Your task to perform on an android device: Go to network settings Image 0: 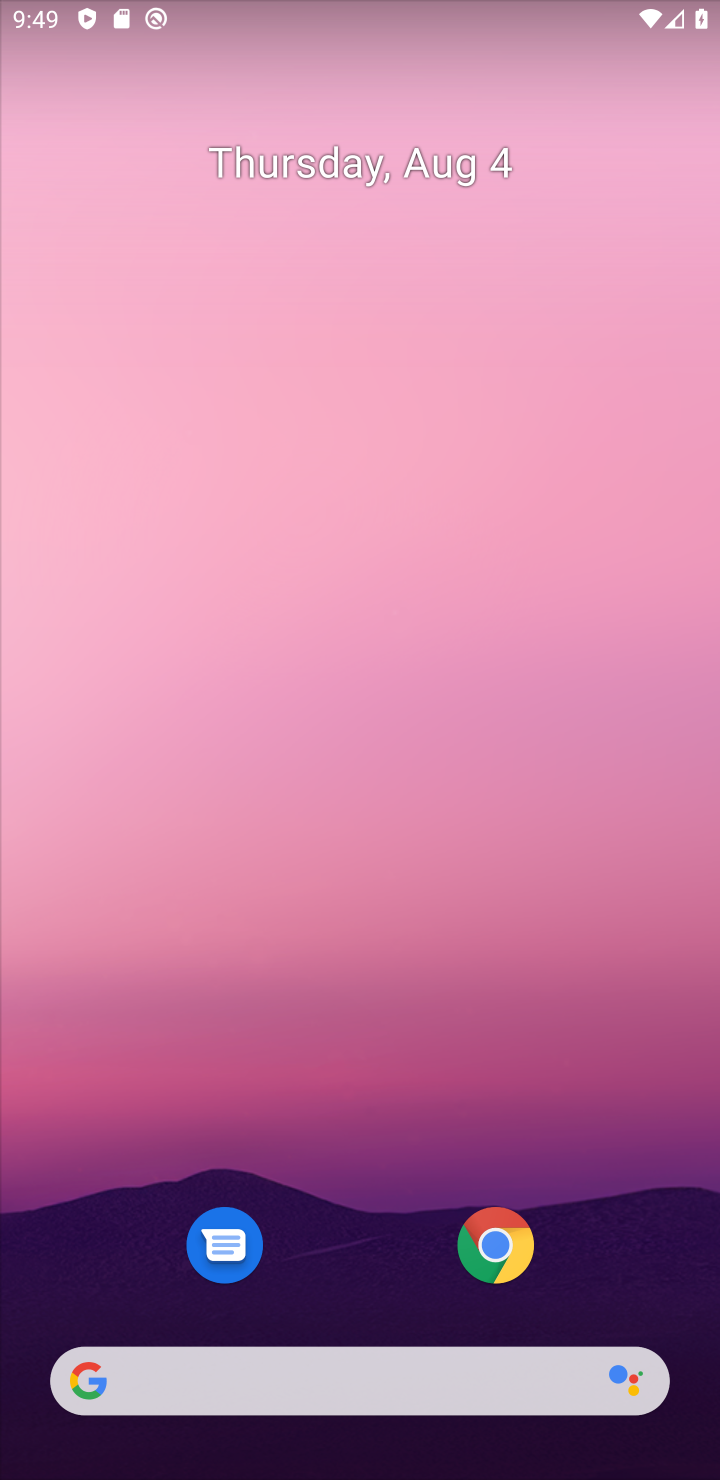
Step 0: drag from (553, 1060) to (331, 259)
Your task to perform on an android device: Go to network settings Image 1: 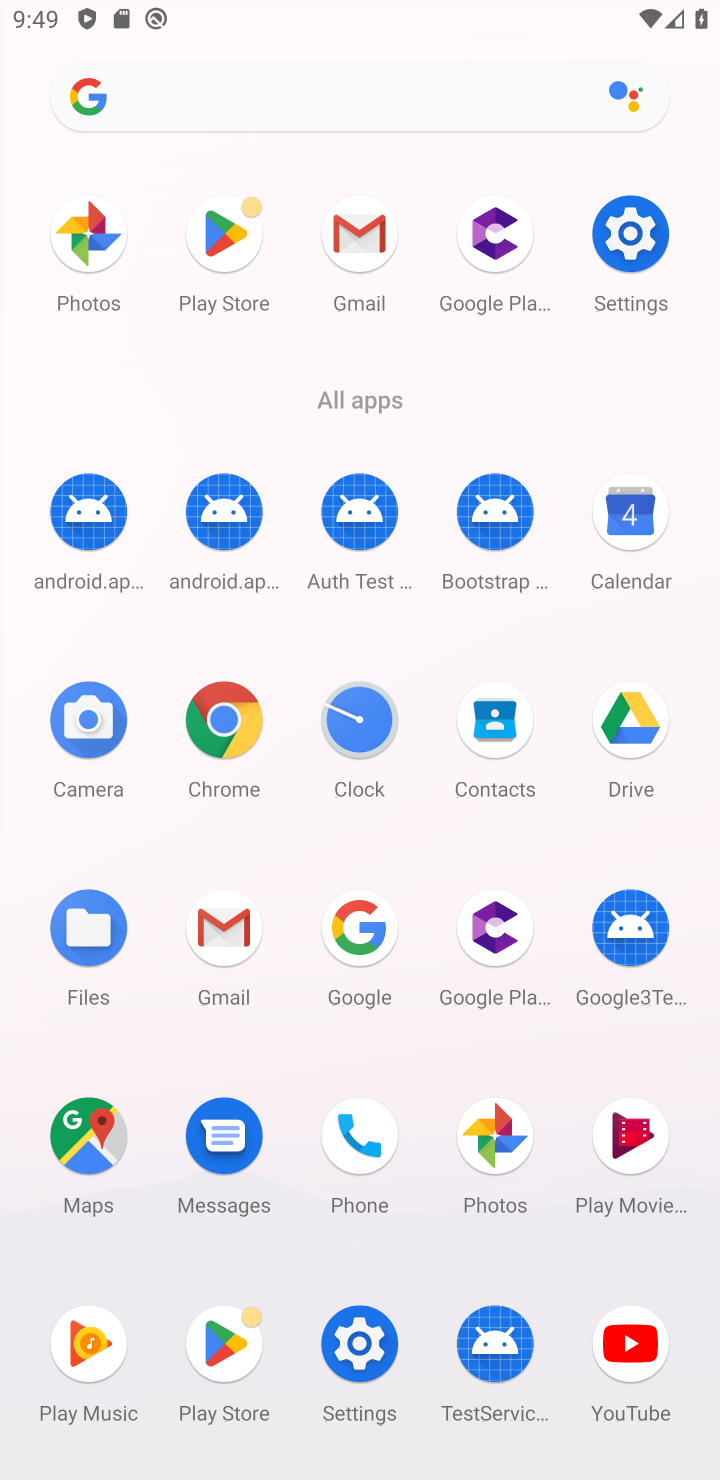
Step 1: click (363, 1329)
Your task to perform on an android device: Go to network settings Image 2: 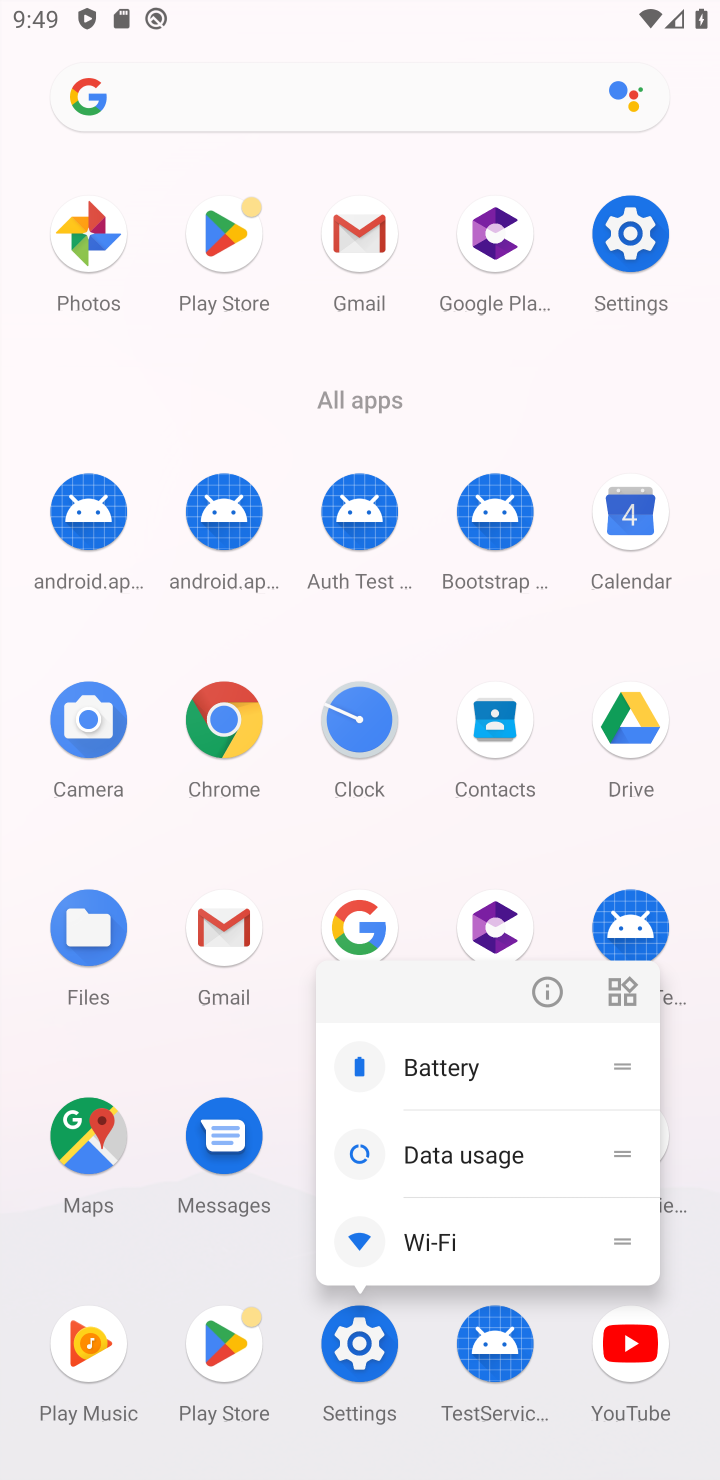
Step 2: click (363, 1329)
Your task to perform on an android device: Go to network settings Image 3: 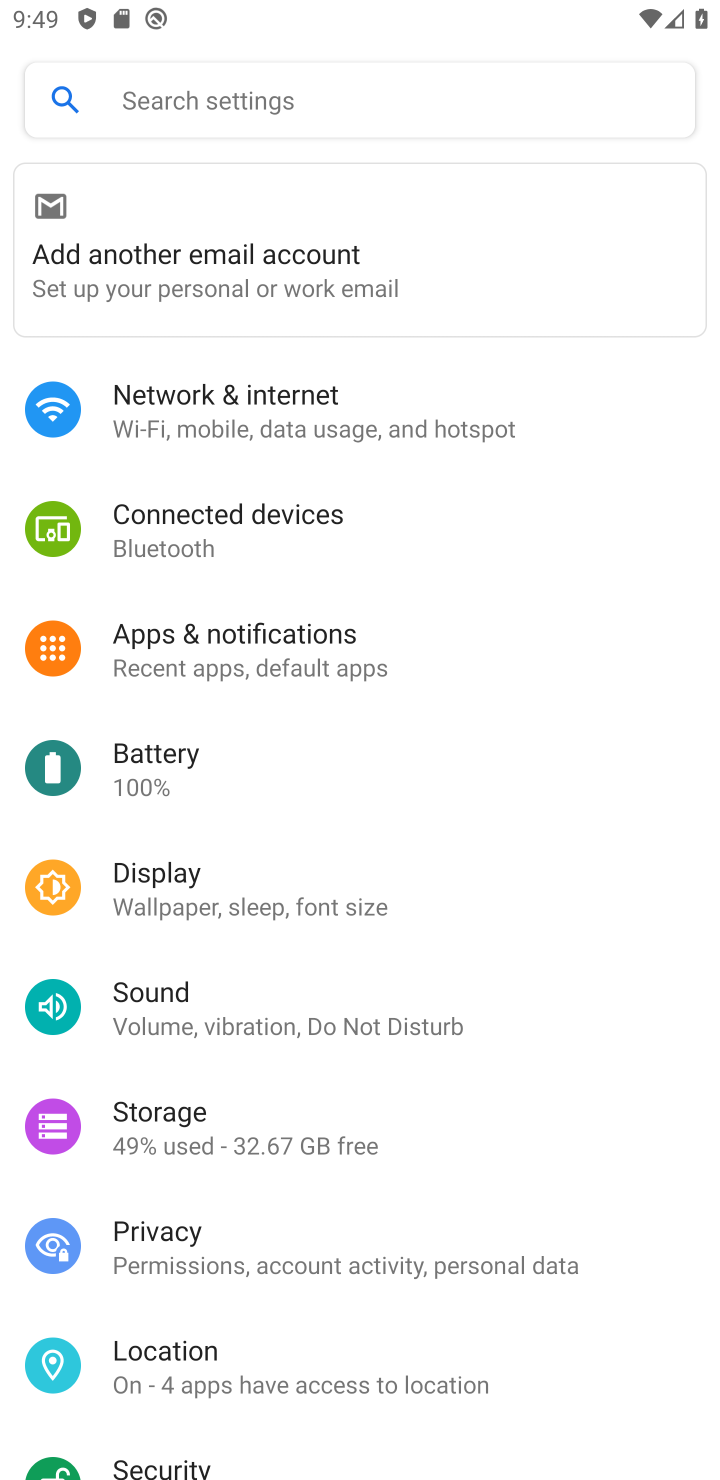
Step 3: click (351, 415)
Your task to perform on an android device: Go to network settings Image 4: 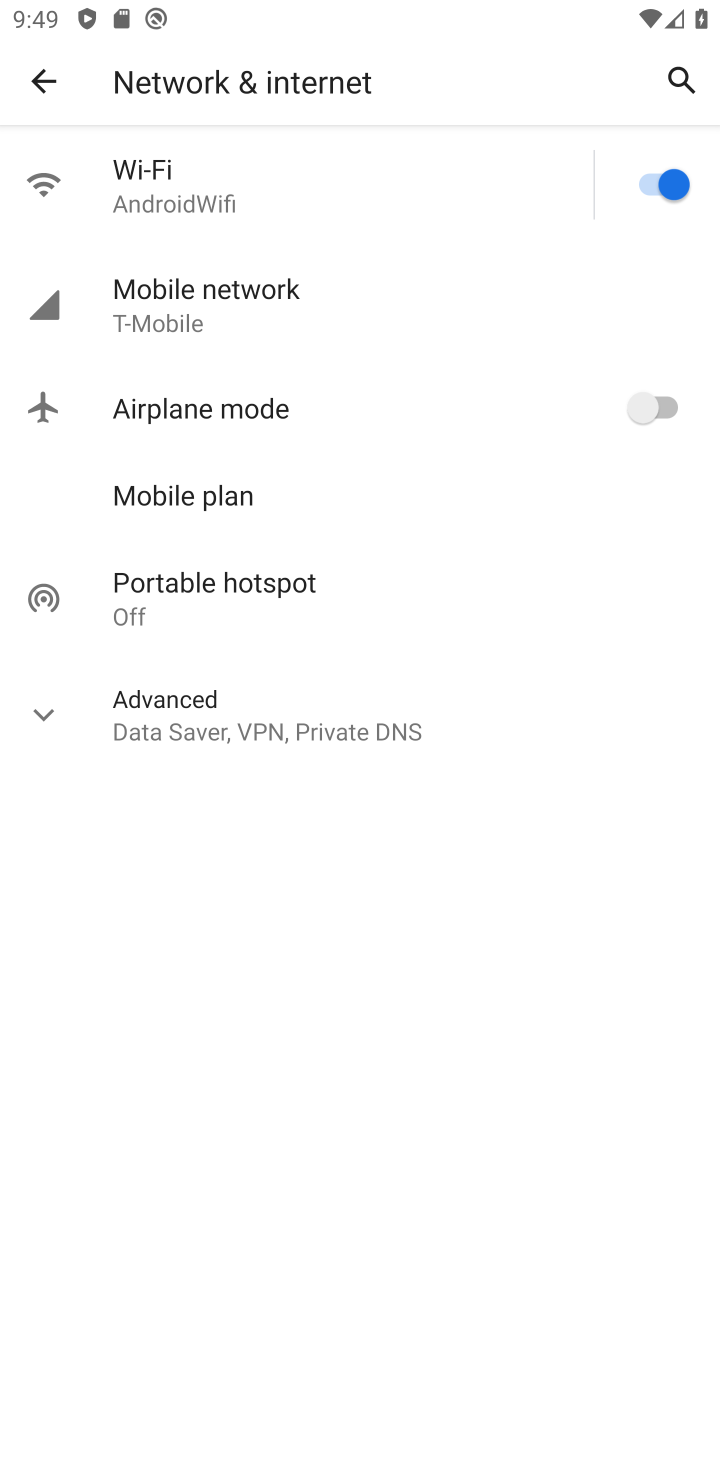
Step 4: task complete